Your task to perform on an android device: move a message to another label in the gmail app Image 0: 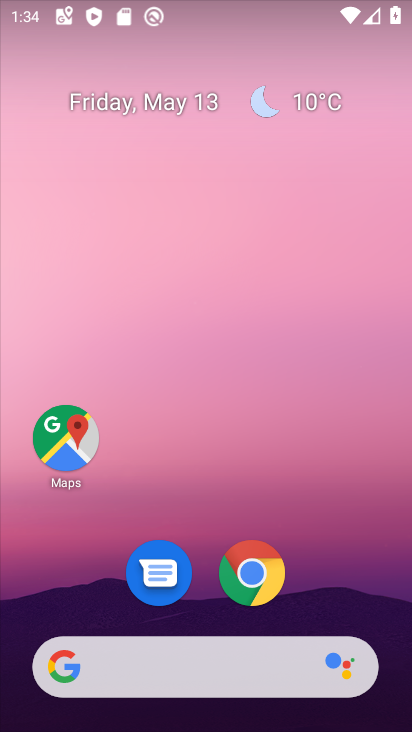
Step 0: drag from (337, 532) to (195, 1)
Your task to perform on an android device: move a message to another label in the gmail app Image 1: 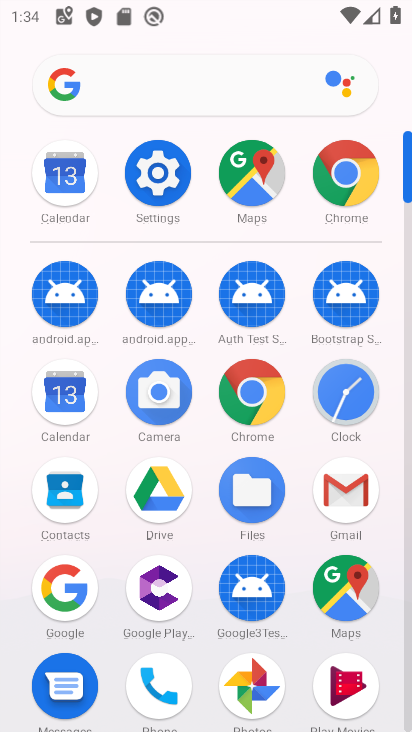
Step 1: drag from (20, 505) to (23, 224)
Your task to perform on an android device: move a message to another label in the gmail app Image 2: 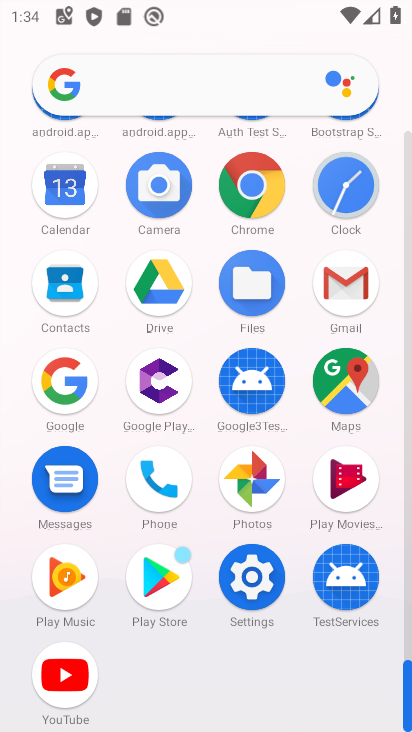
Step 2: drag from (16, 575) to (13, 305)
Your task to perform on an android device: move a message to another label in the gmail app Image 3: 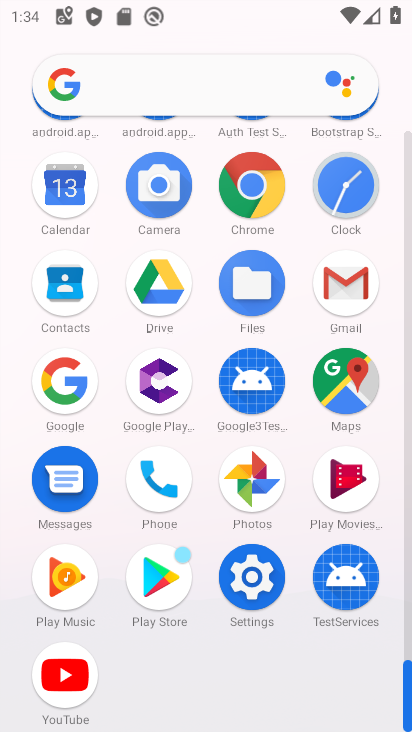
Step 3: click (344, 272)
Your task to perform on an android device: move a message to another label in the gmail app Image 4: 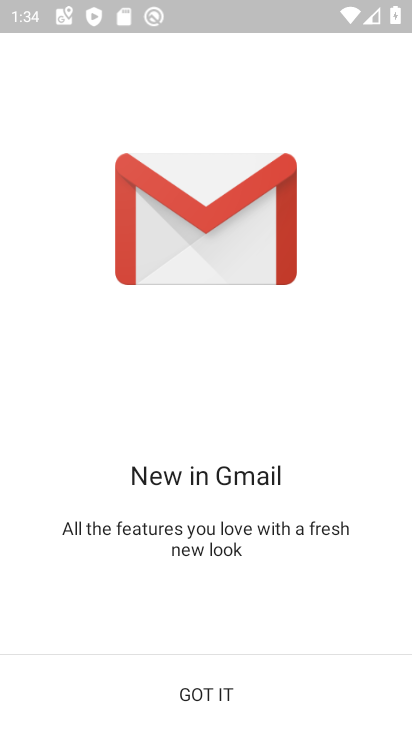
Step 4: click (226, 683)
Your task to perform on an android device: move a message to another label in the gmail app Image 5: 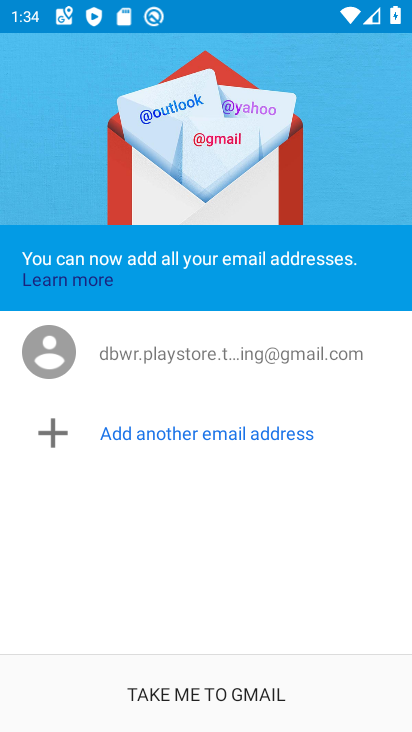
Step 5: click (233, 703)
Your task to perform on an android device: move a message to another label in the gmail app Image 6: 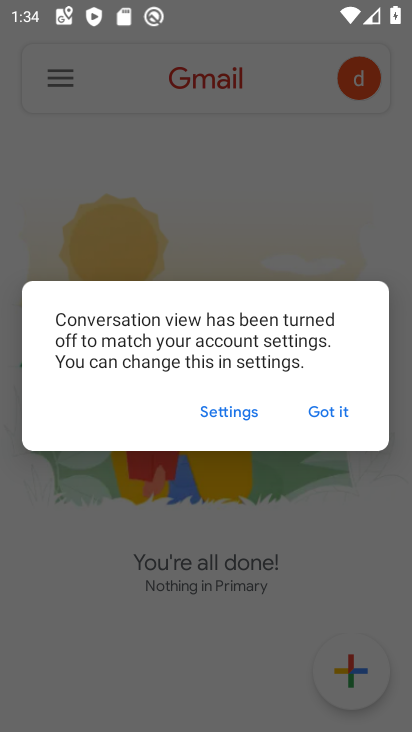
Step 6: click (324, 410)
Your task to perform on an android device: move a message to another label in the gmail app Image 7: 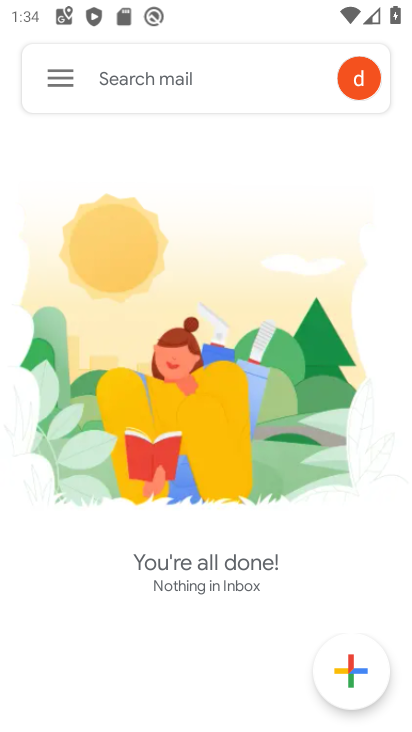
Step 7: click (50, 67)
Your task to perform on an android device: move a message to another label in the gmail app Image 8: 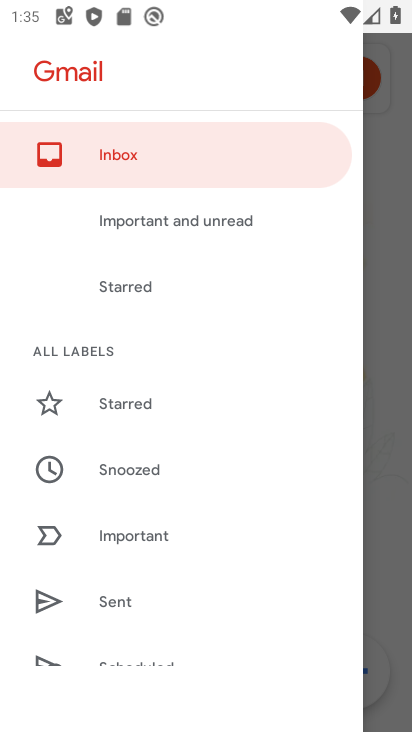
Step 8: click (186, 166)
Your task to perform on an android device: move a message to another label in the gmail app Image 9: 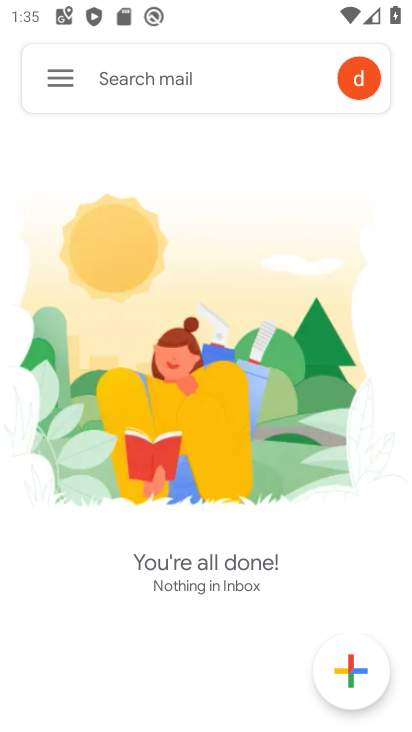
Step 9: click (74, 74)
Your task to perform on an android device: move a message to another label in the gmail app Image 10: 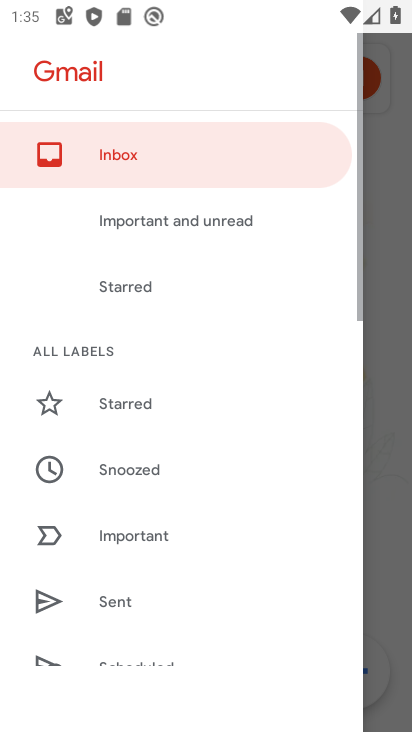
Step 10: drag from (208, 568) to (209, 199)
Your task to perform on an android device: move a message to another label in the gmail app Image 11: 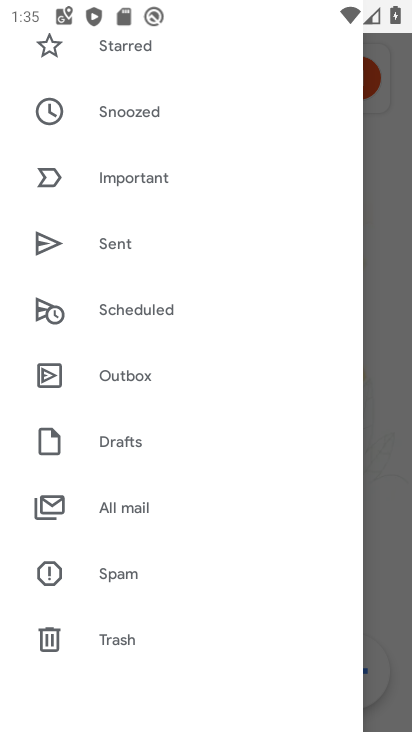
Step 11: click (139, 496)
Your task to perform on an android device: move a message to another label in the gmail app Image 12: 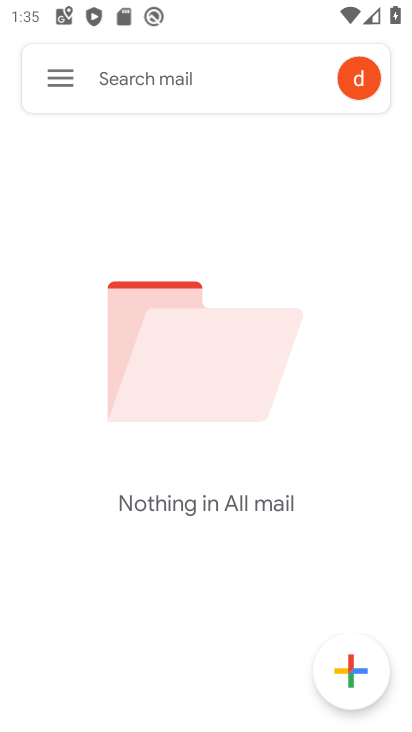
Step 12: task complete